Your task to perform on an android device: Open wifi settings Image 0: 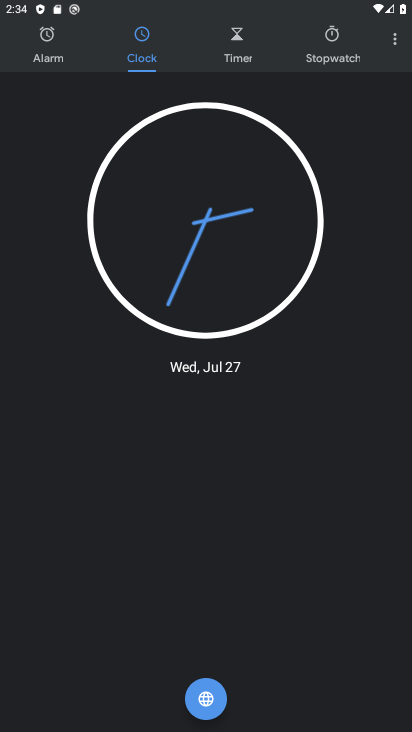
Step 0: press home button
Your task to perform on an android device: Open wifi settings Image 1: 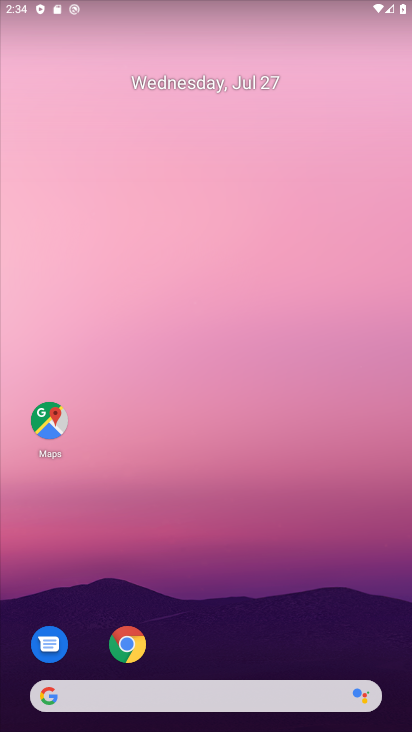
Step 1: drag from (224, 628) to (274, 10)
Your task to perform on an android device: Open wifi settings Image 2: 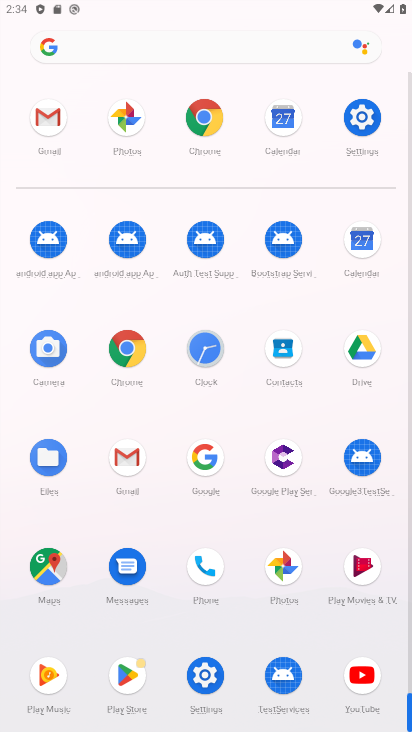
Step 2: click (368, 127)
Your task to perform on an android device: Open wifi settings Image 3: 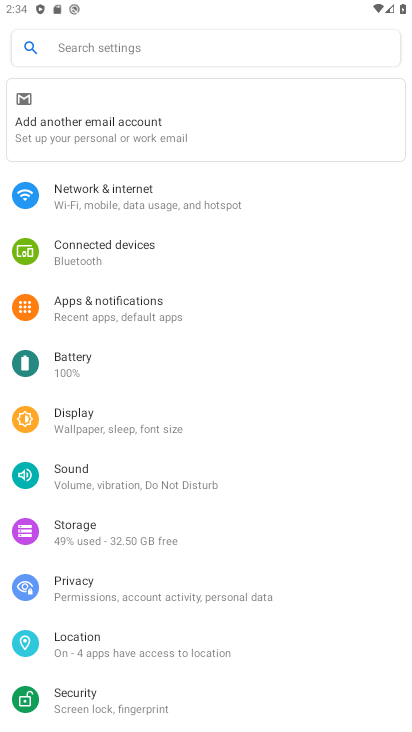
Step 3: click (108, 199)
Your task to perform on an android device: Open wifi settings Image 4: 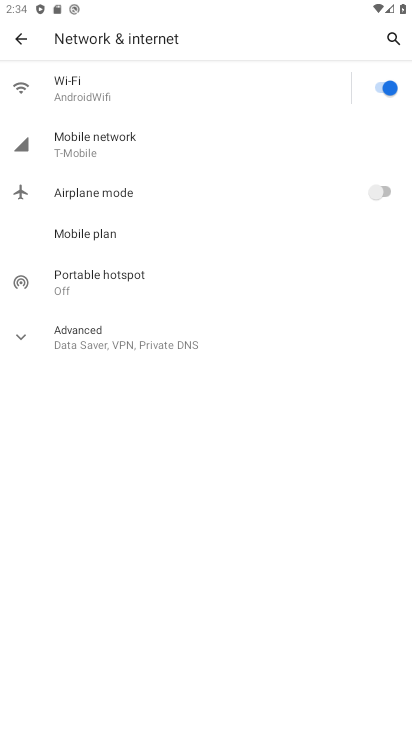
Step 4: click (93, 94)
Your task to perform on an android device: Open wifi settings Image 5: 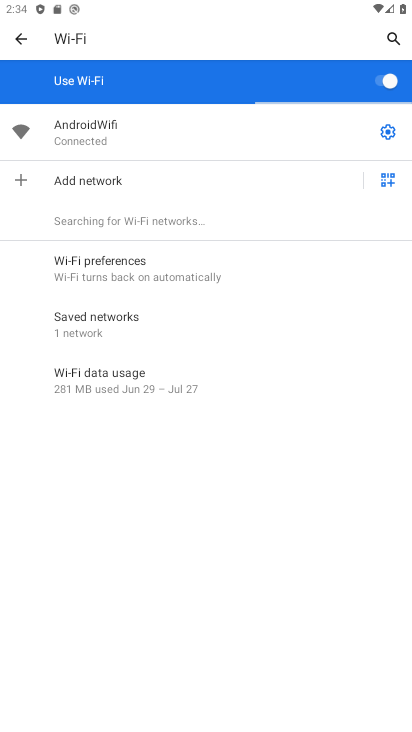
Step 5: task complete